Your task to perform on an android device: open wifi settings Image 0: 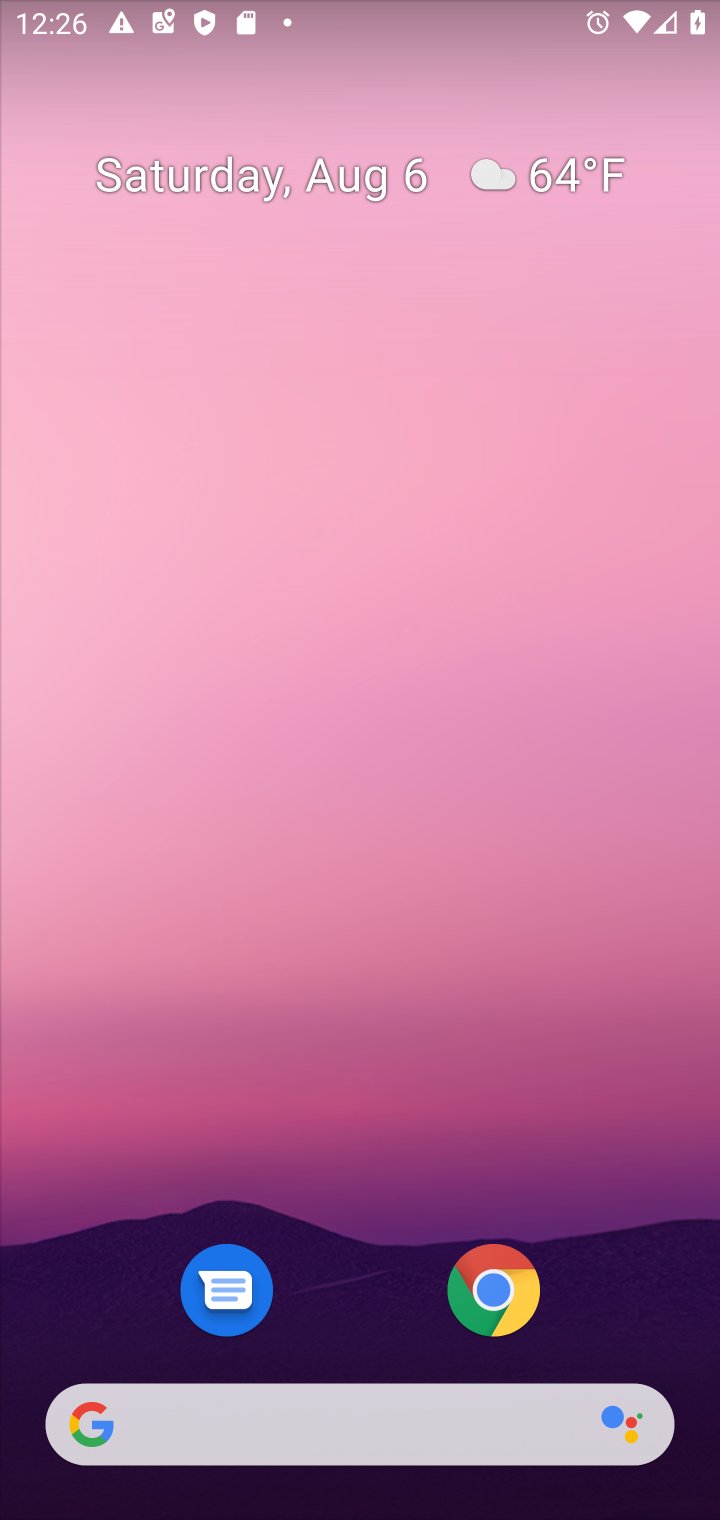
Step 0: press home button
Your task to perform on an android device: open wifi settings Image 1: 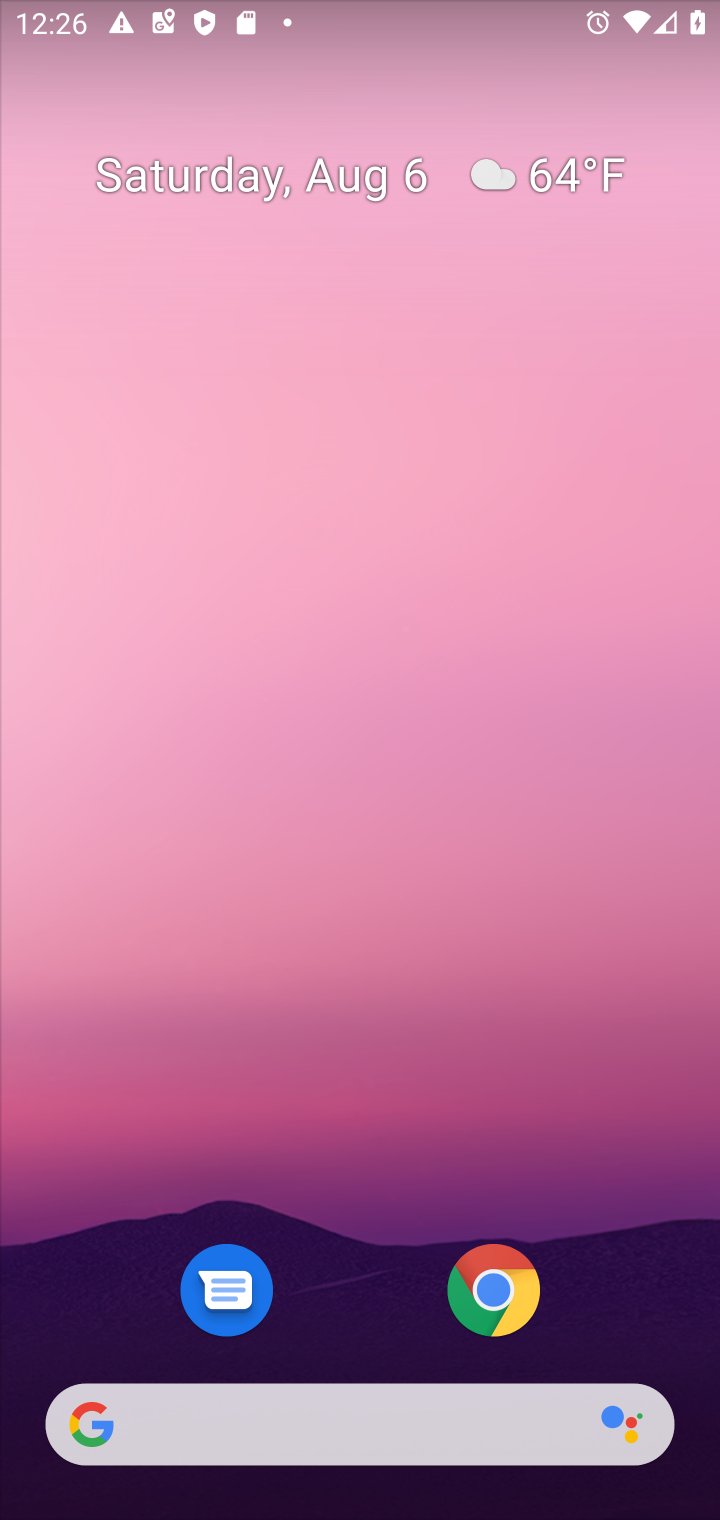
Step 1: drag from (344, 1317) to (295, 63)
Your task to perform on an android device: open wifi settings Image 2: 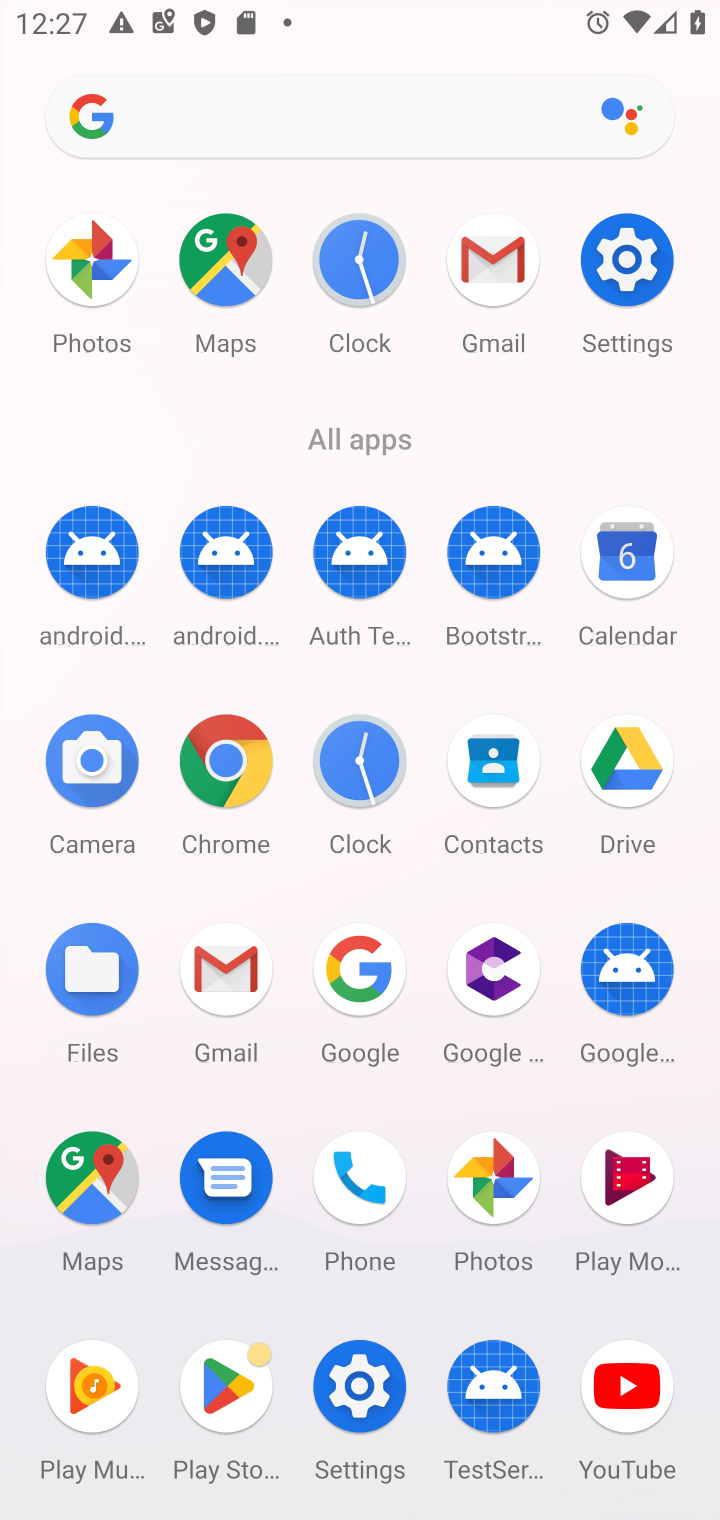
Step 2: click (621, 242)
Your task to perform on an android device: open wifi settings Image 3: 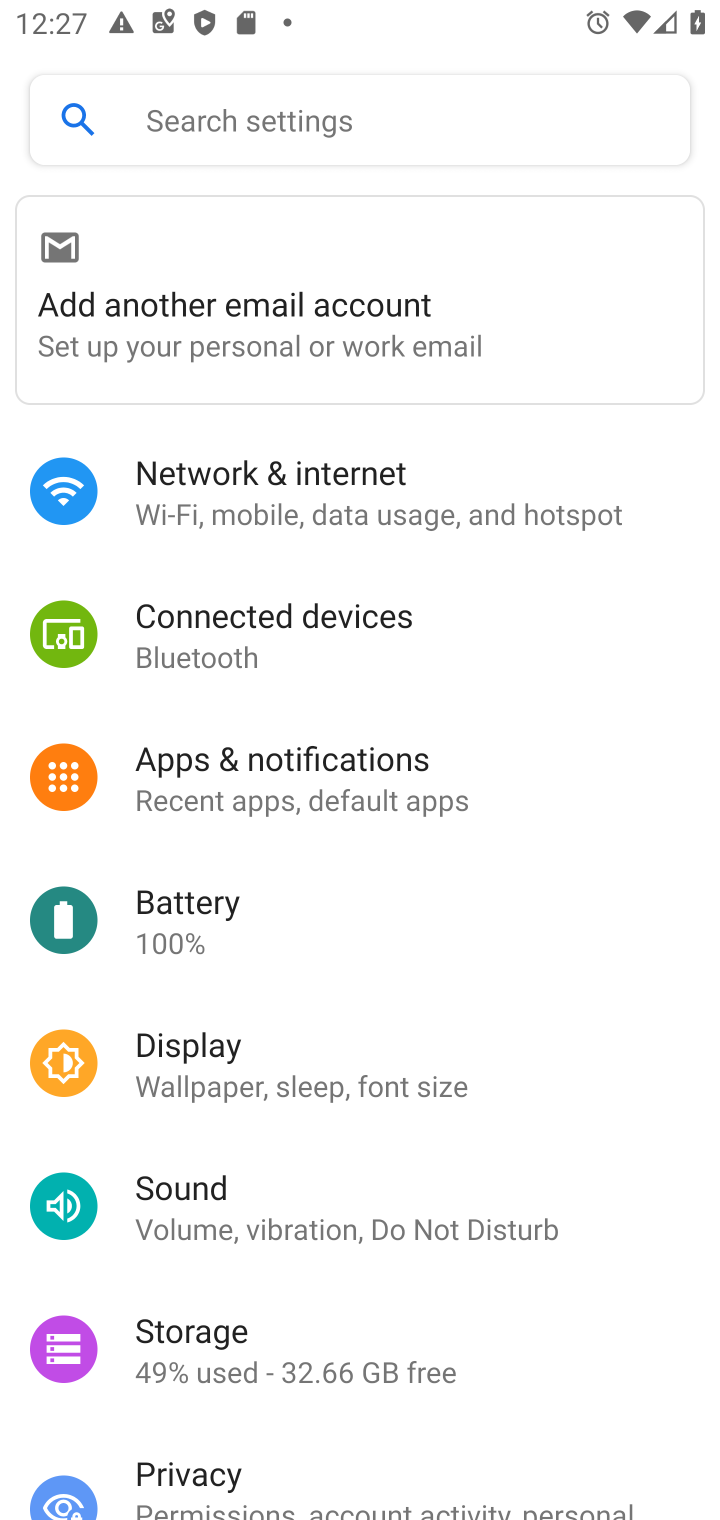
Step 3: click (264, 470)
Your task to perform on an android device: open wifi settings Image 4: 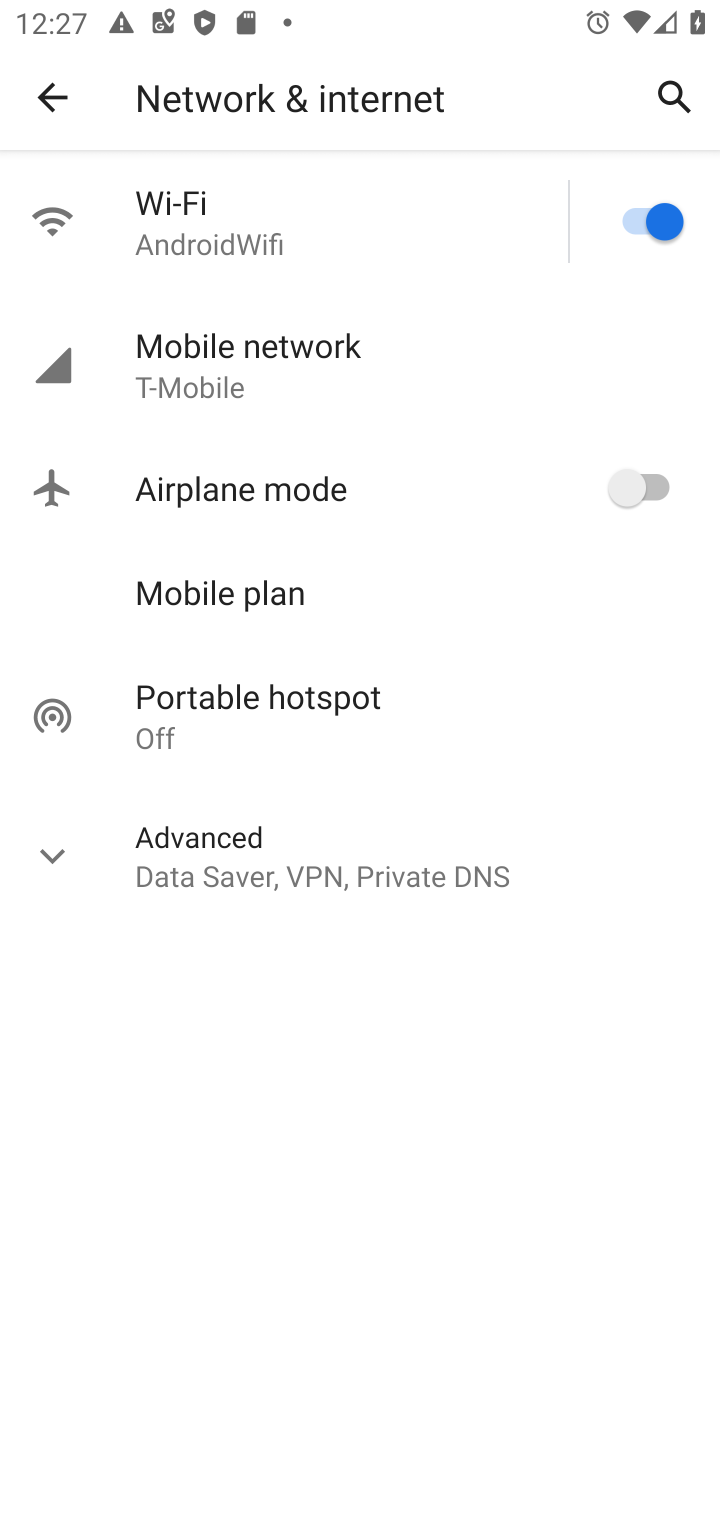
Step 4: click (307, 211)
Your task to perform on an android device: open wifi settings Image 5: 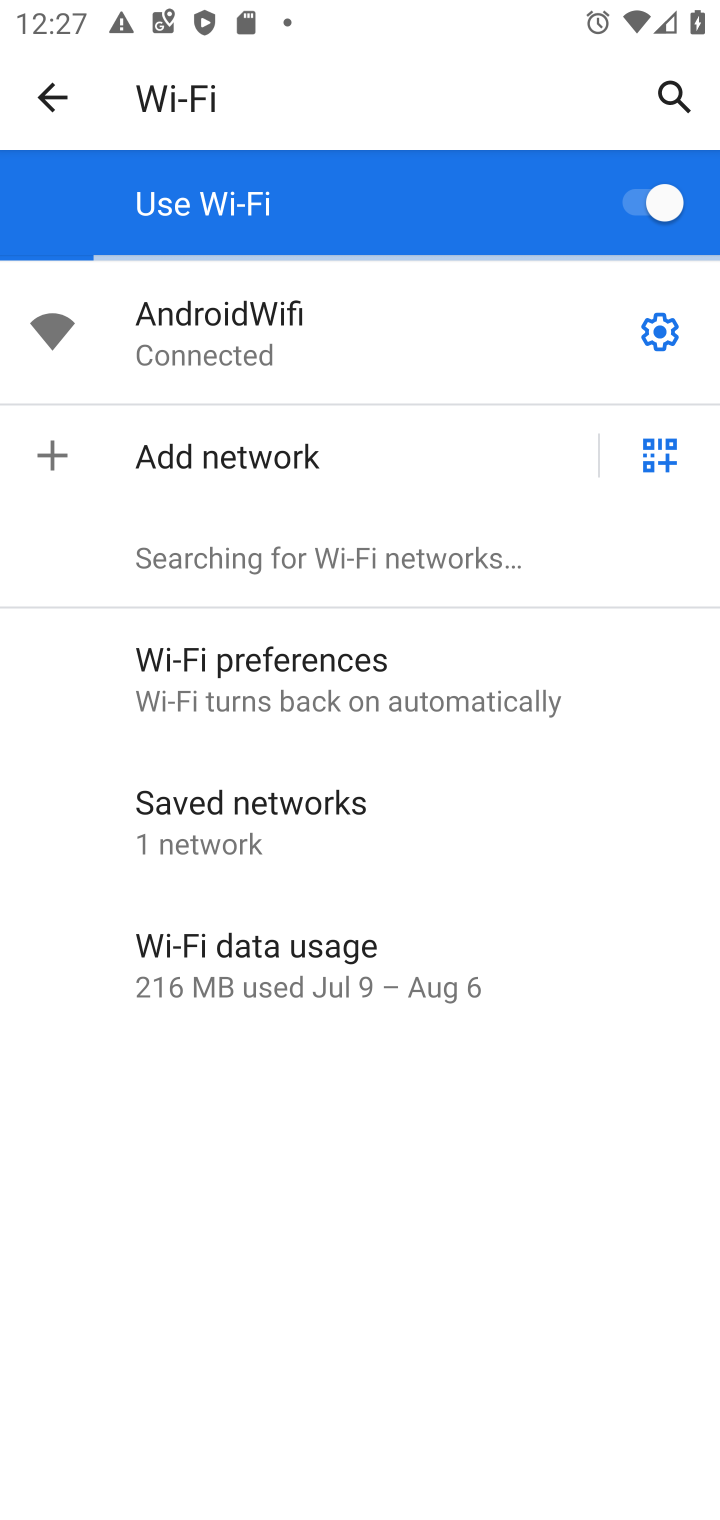
Step 5: task complete